Your task to perform on an android device: Open maps Image 0: 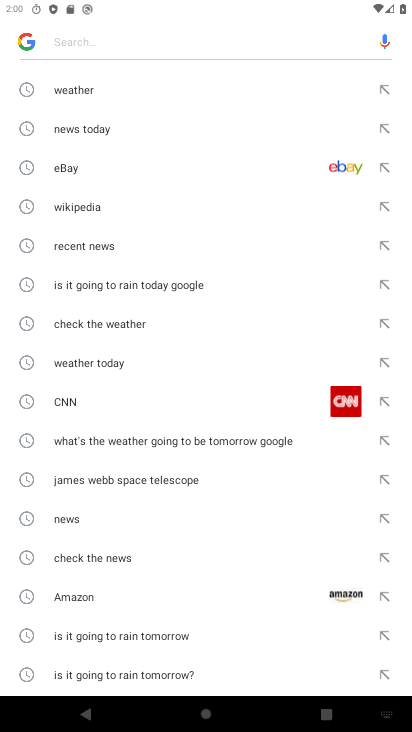
Step 0: press home button
Your task to perform on an android device: Open maps Image 1: 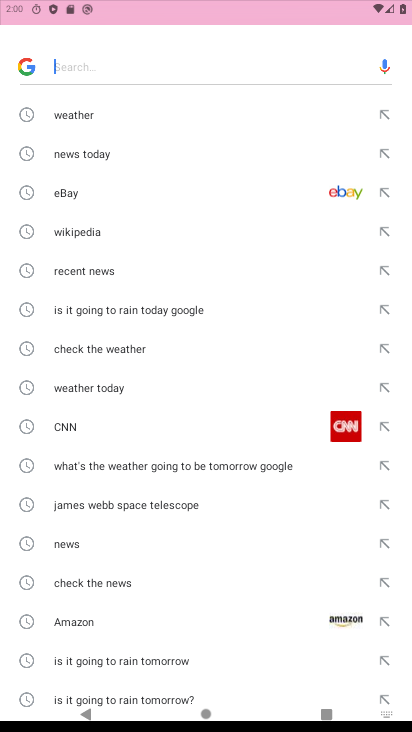
Step 1: drag from (153, 584) to (207, 135)
Your task to perform on an android device: Open maps Image 2: 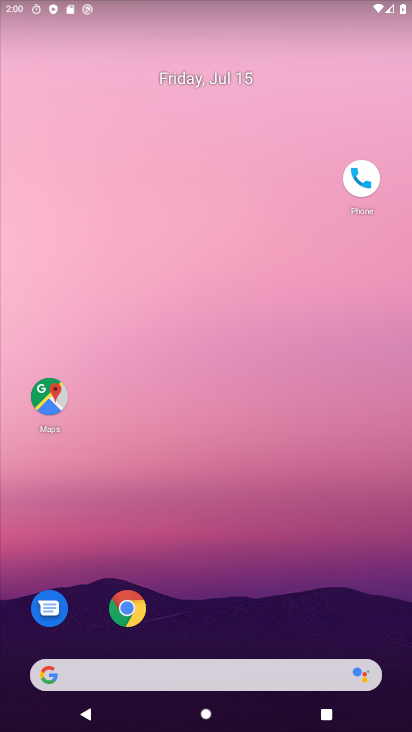
Step 2: drag from (204, 605) to (304, 191)
Your task to perform on an android device: Open maps Image 3: 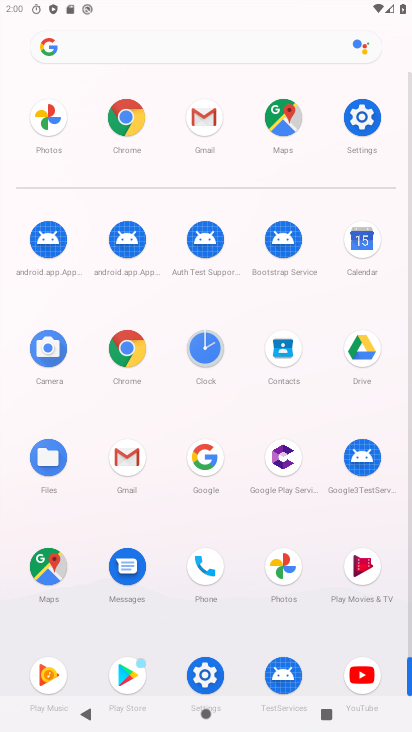
Step 3: click (50, 542)
Your task to perform on an android device: Open maps Image 4: 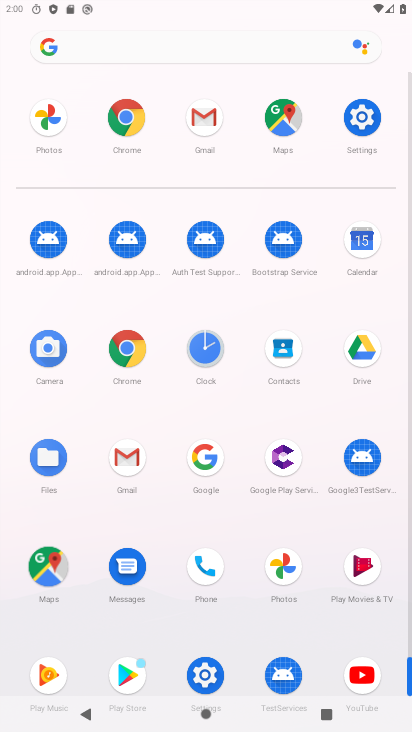
Step 4: click (50, 542)
Your task to perform on an android device: Open maps Image 5: 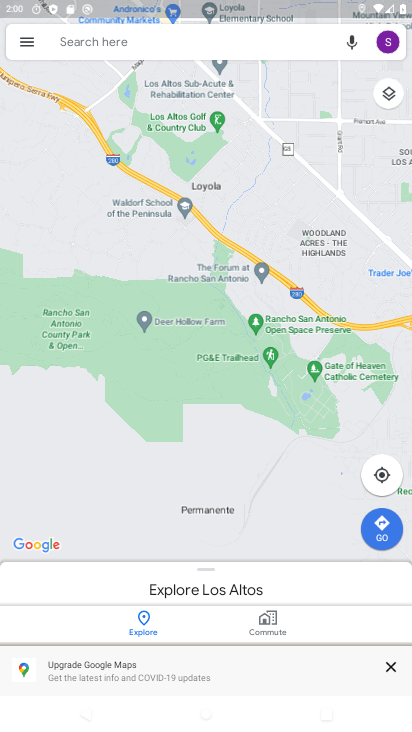
Step 5: task complete